Your task to perform on an android device: Open accessibility settings Image 0: 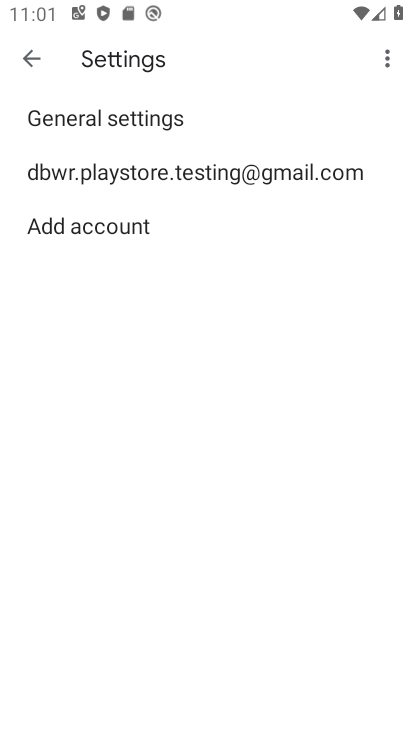
Step 0: press home button
Your task to perform on an android device: Open accessibility settings Image 1: 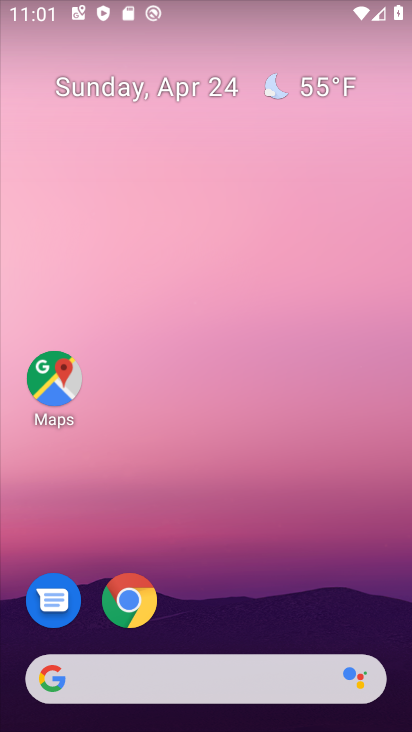
Step 1: drag from (189, 635) to (230, 48)
Your task to perform on an android device: Open accessibility settings Image 2: 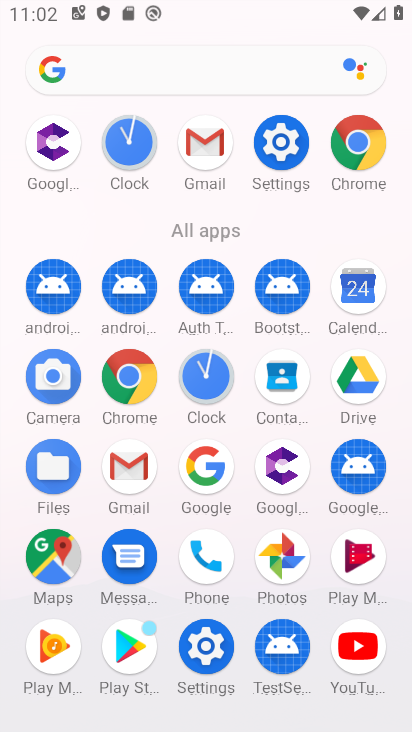
Step 2: click (289, 139)
Your task to perform on an android device: Open accessibility settings Image 3: 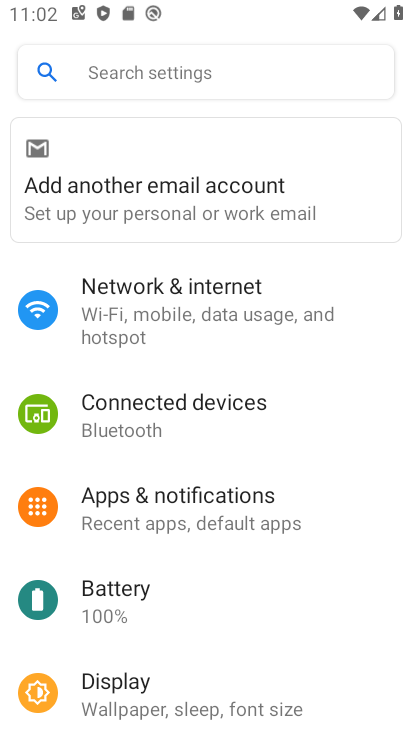
Step 3: drag from (162, 555) to (263, 29)
Your task to perform on an android device: Open accessibility settings Image 4: 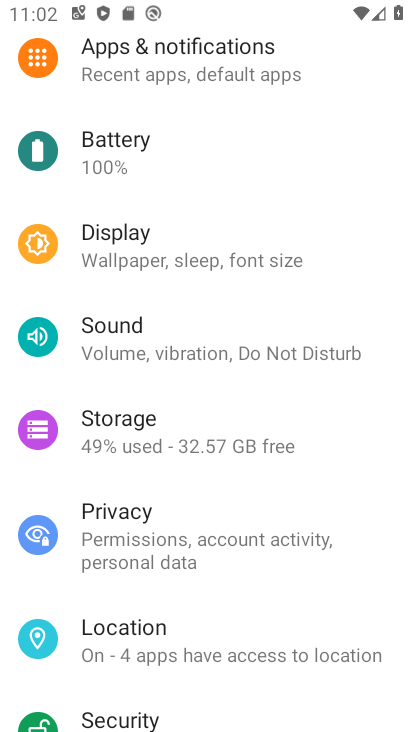
Step 4: drag from (157, 692) to (211, 199)
Your task to perform on an android device: Open accessibility settings Image 5: 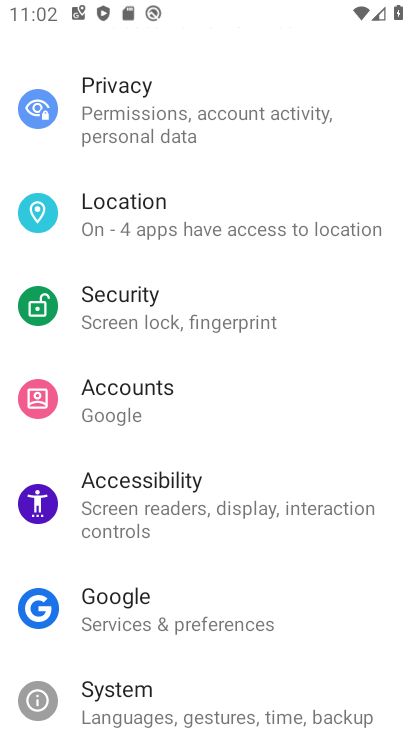
Step 5: click (160, 494)
Your task to perform on an android device: Open accessibility settings Image 6: 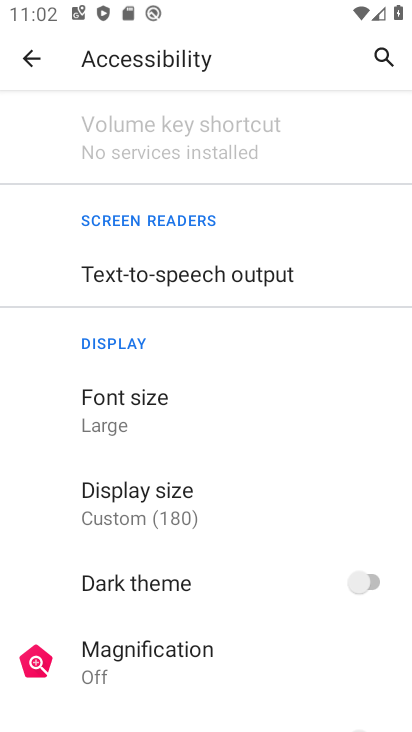
Step 6: task complete